Your task to perform on an android device: change the clock display to analog Image 0: 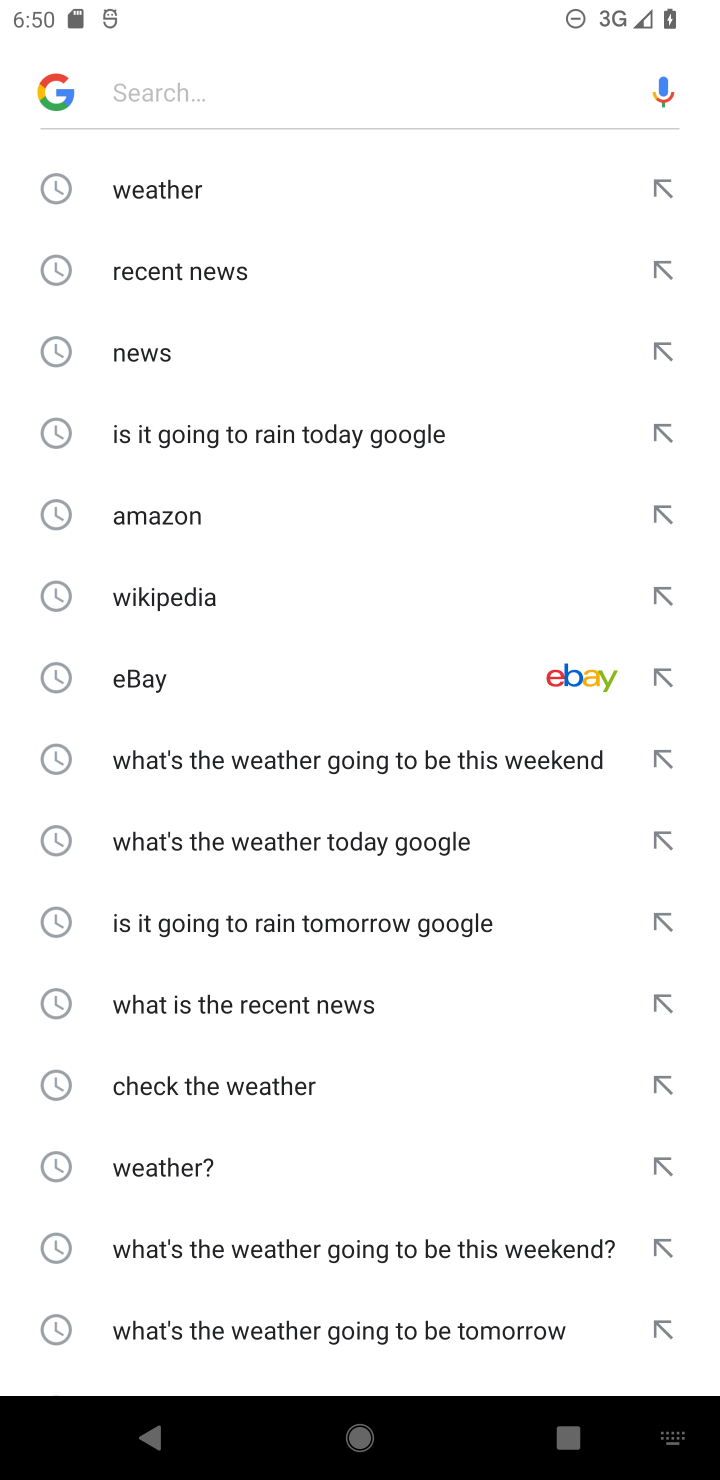
Step 0: press home button
Your task to perform on an android device: change the clock display to analog Image 1: 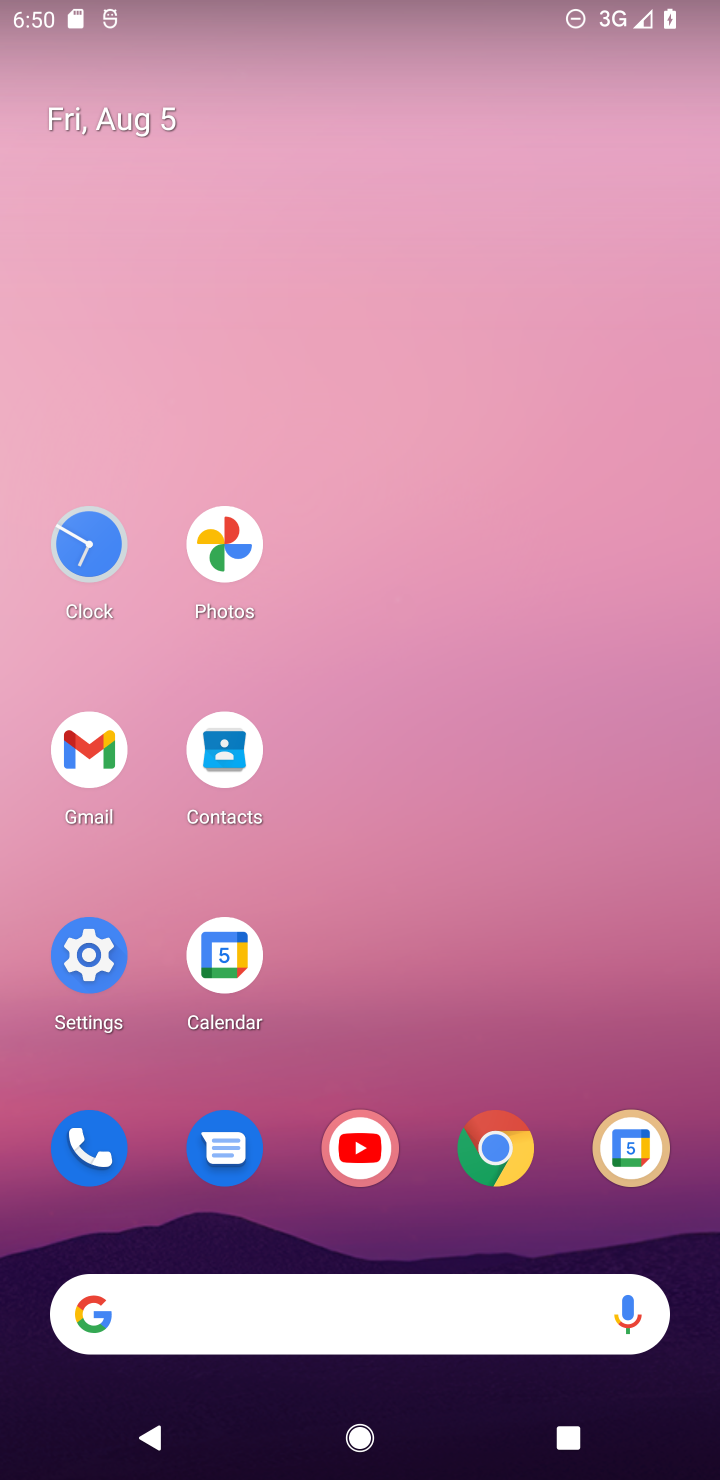
Step 1: click (92, 549)
Your task to perform on an android device: change the clock display to analog Image 2: 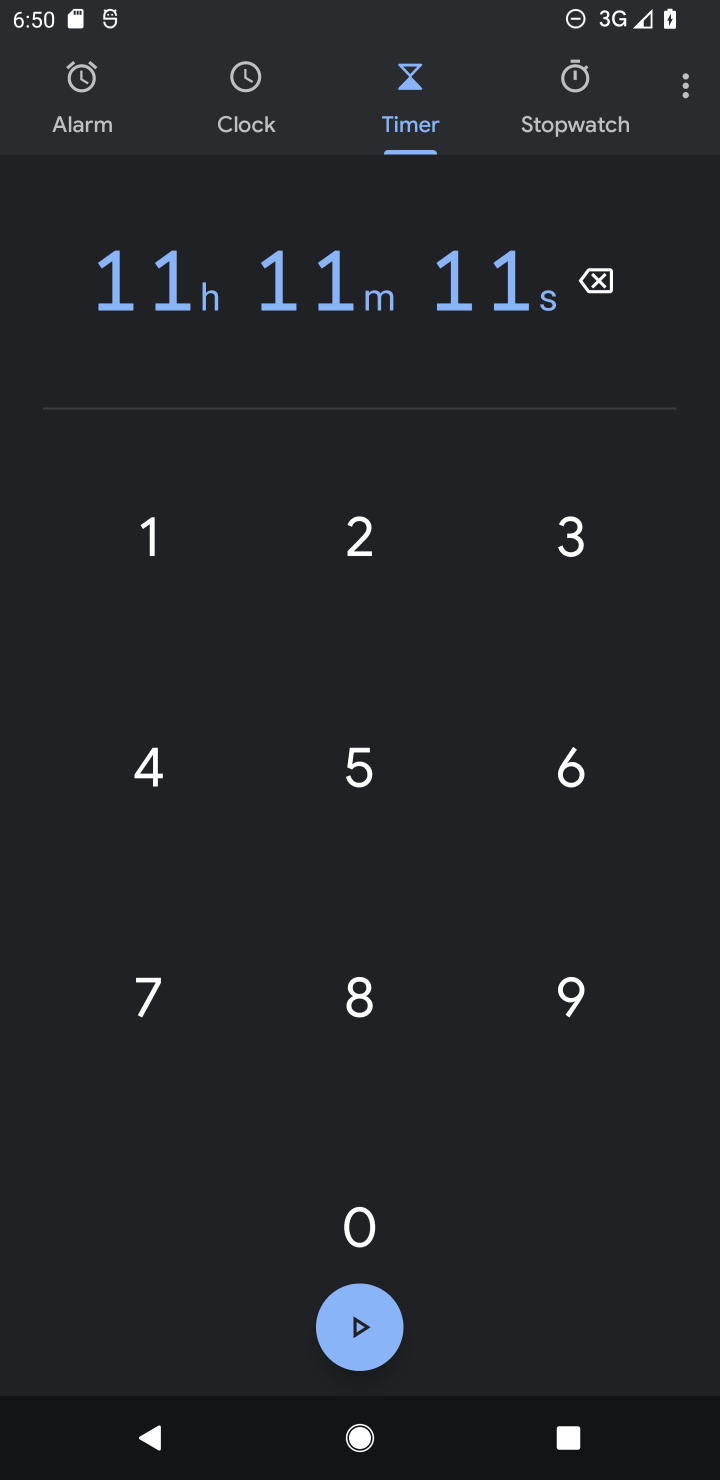
Step 2: click (694, 82)
Your task to perform on an android device: change the clock display to analog Image 3: 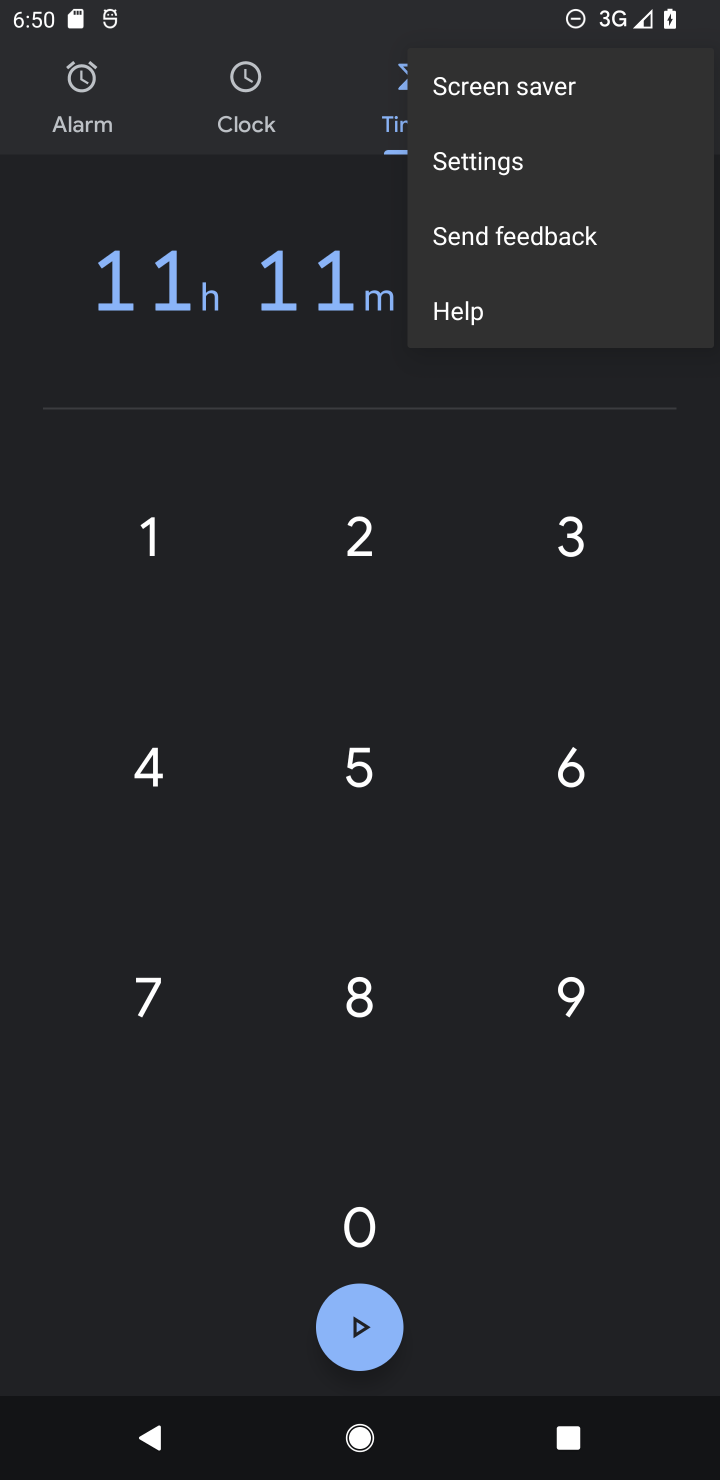
Step 3: click (458, 155)
Your task to perform on an android device: change the clock display to analog Image 4: 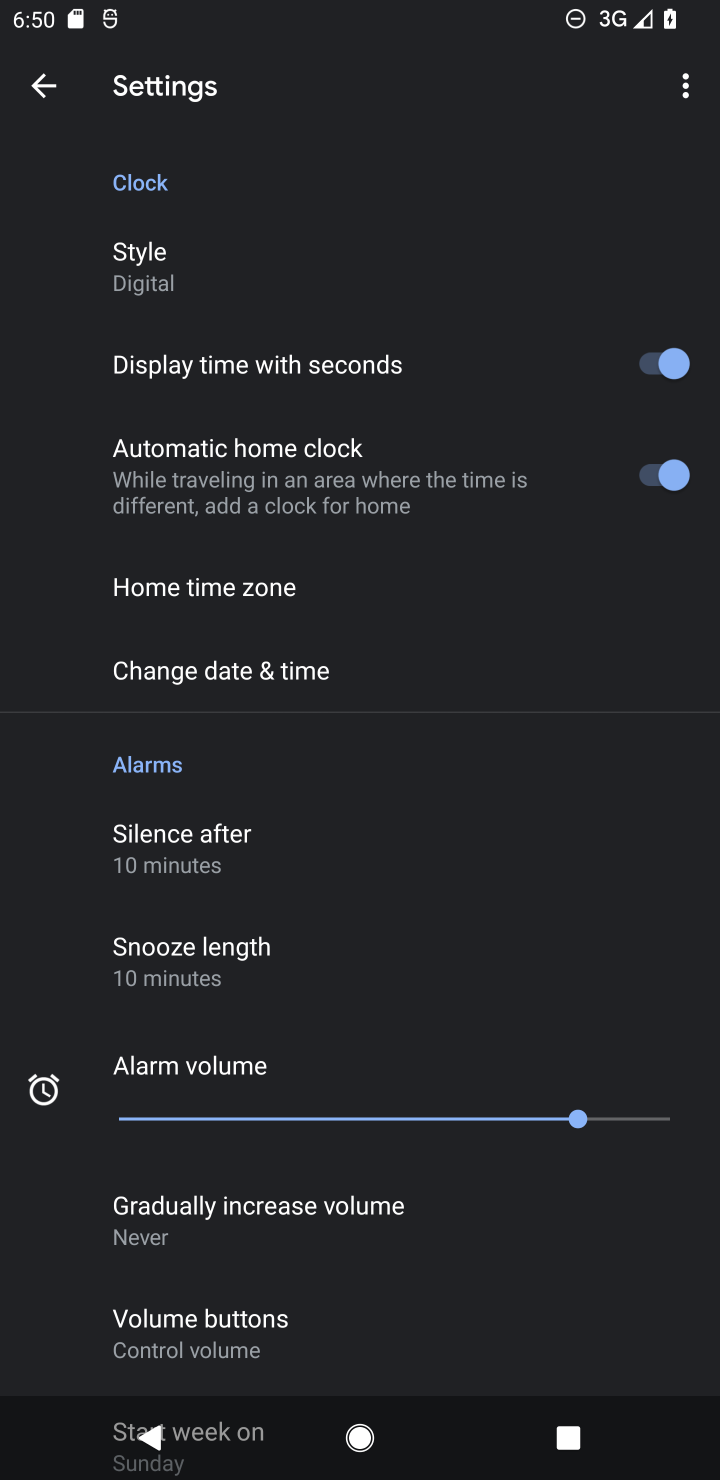
Step 4: task complete